Your task to perform on an android device: Turn on the flashlight Image 0: 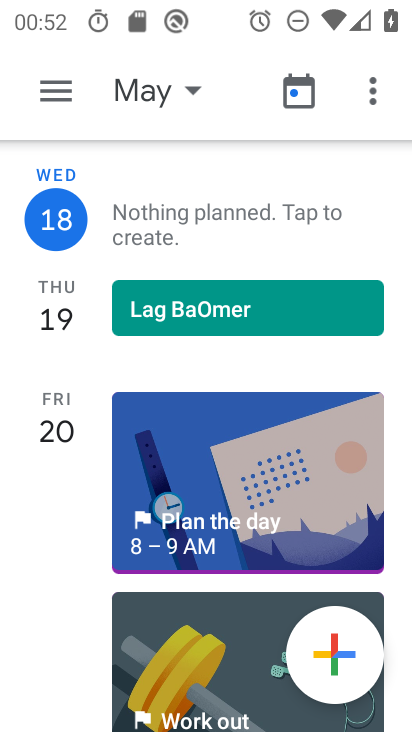
Step 0: task impossible